Your task to perform on an android device: Open settings Image 0: 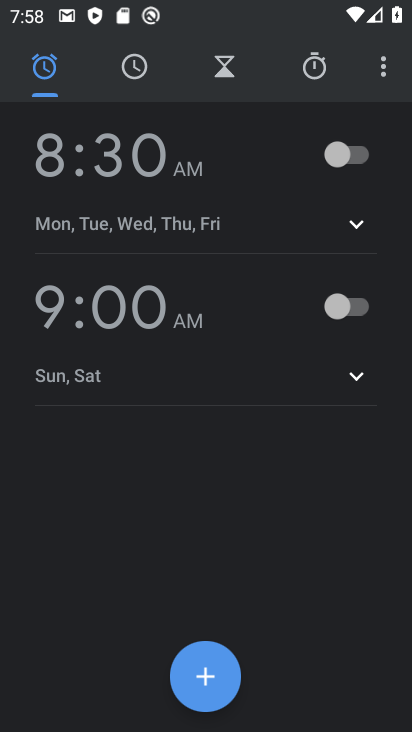
Step 0: press home button
Your task to perform on an android device: Open settings Image 1: 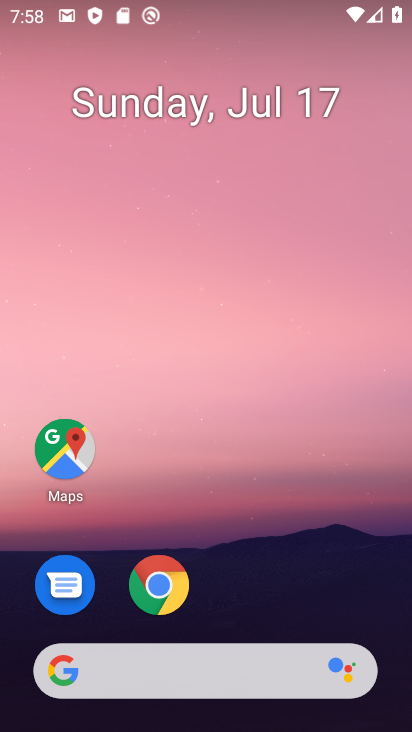
Step 1: drag from (173, 664) to (238, 212)
Your task to perform on an android device: Open settings Image 2: 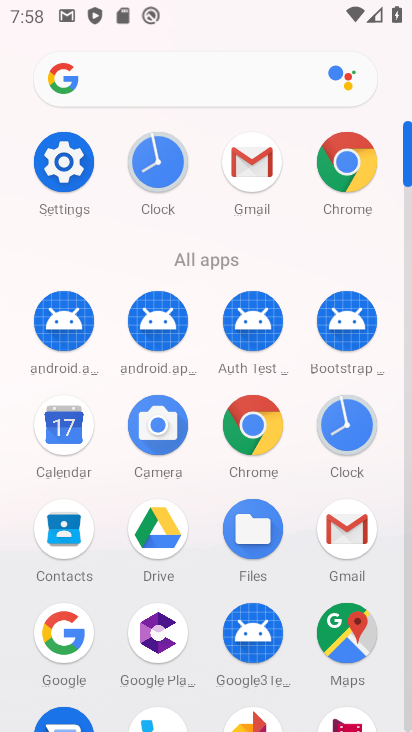
Step 2: click (68, 173)
Your task to perform on an android device: Open settings Image 3: 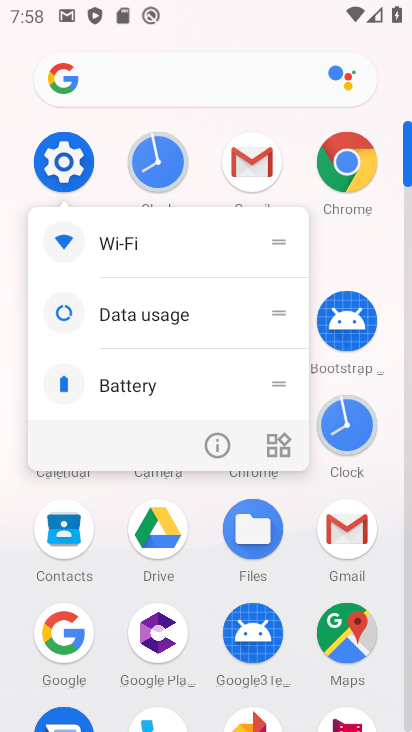
Step 3: click (65, 165)
Your task to perform on an android device: Open settings Image 4: 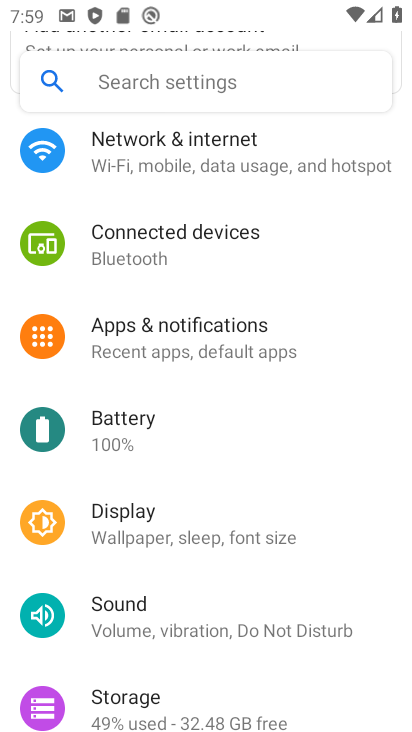
Step 4: task complete